Your task to perform on an android device: Go to Google Image 0: 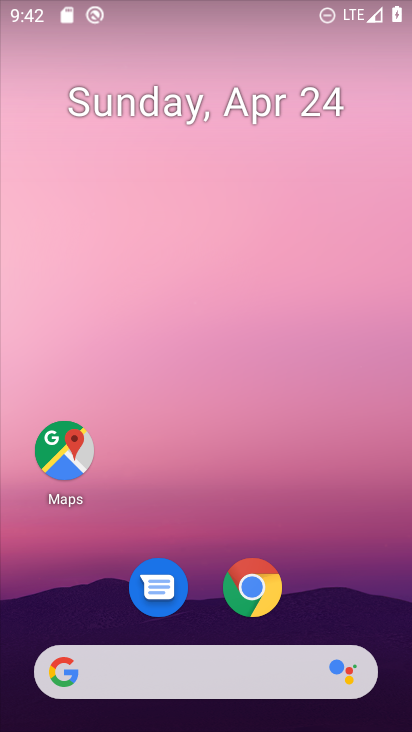
Step 0: drag from (386, 598) to (340, 137)
Your task to perform on an android device: Go to Google Image 1: 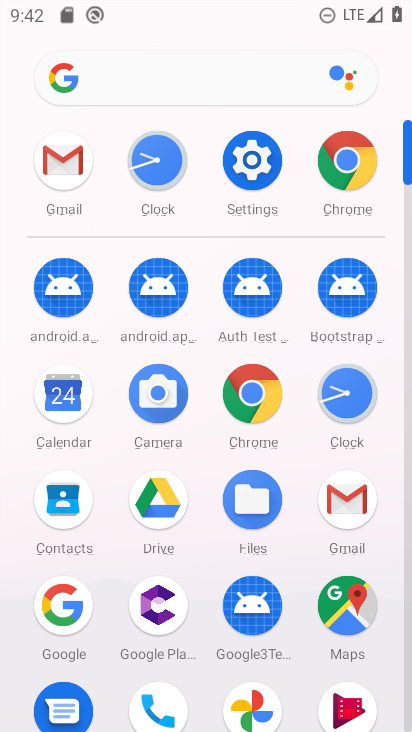
Step 1: click (68, 610)
Your task to perform on an android device: Go to Google Image 2: 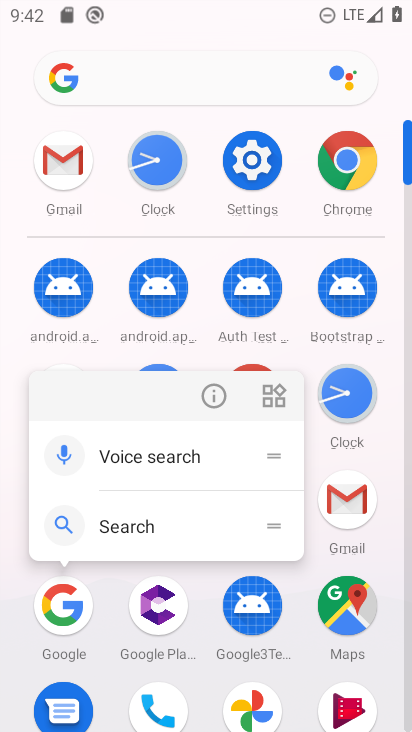
Step 2: click (68, 610)
Your task to perform on an android device: Go to Google Image 3: 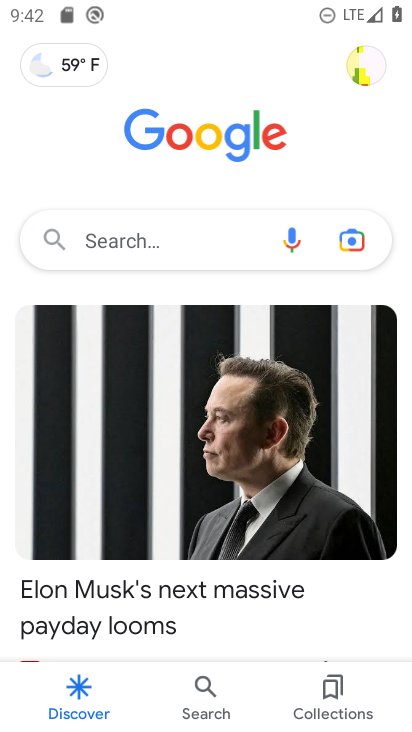
Step 3: click (167, 244)
Your task to perform on an android device: Go to Google Image 4: 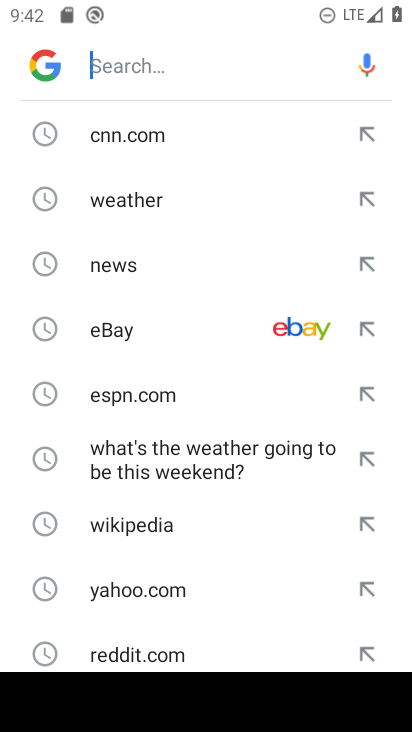
Step 4: task complete